Your task to perform on an android device: Open Google Maps Image 0: 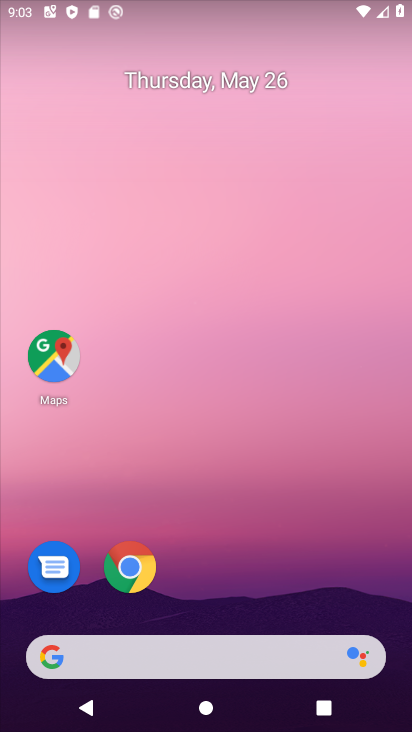
Step 0: click (47, 365)
Your task to perform on an android device: Open Google Maps Image 1: 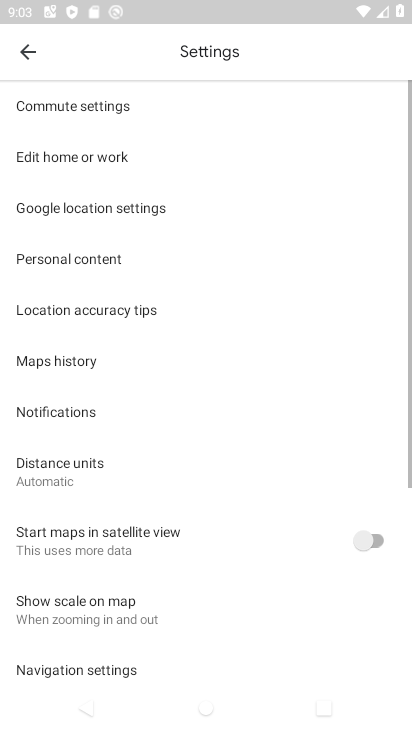
Step 1: click (30, 55)
Your task to perform on an android device: Open Google Maps Image 2: 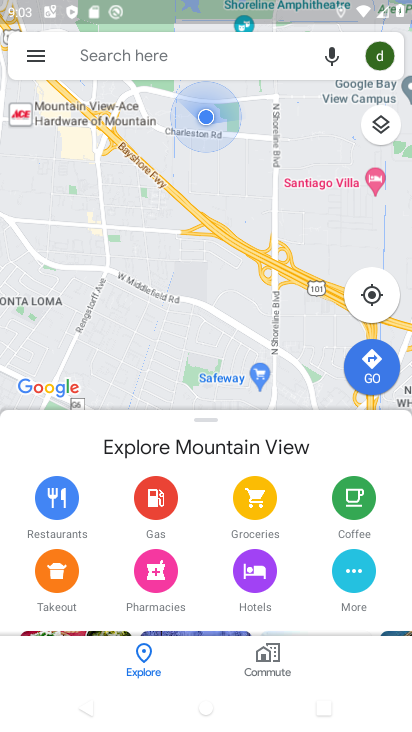
Step 2: task complete